Your task to perform on an android device: find which apps use the phone's location Image 0: 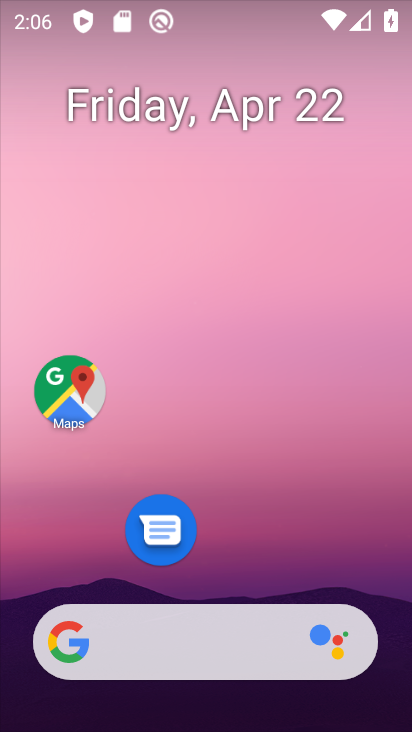
Step 0: drag from (245, 419) to (261, 13)
Your task to perform on an android device: find which apps use the phone's location Image 1: 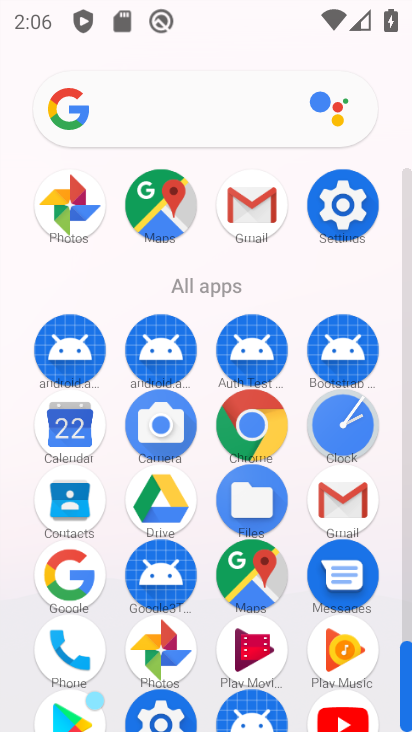
Step 1: click (341, 209)
Your task to perform on an android device: find which apps use the phone's location Image 2: 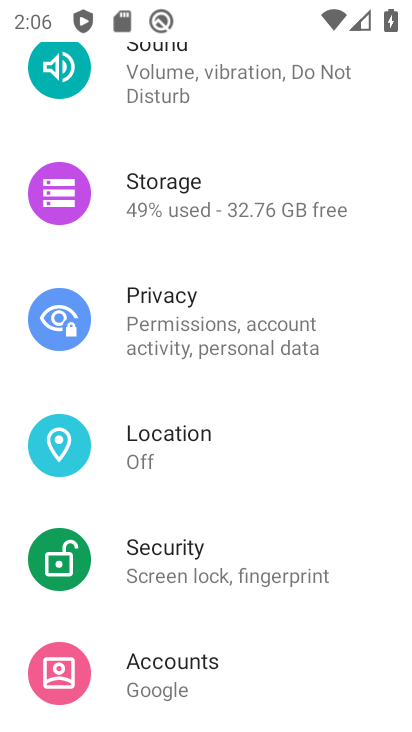
Step 2: click (154, 442)
Your task to perform on an android device: find which apps use the phone's location Image 3: 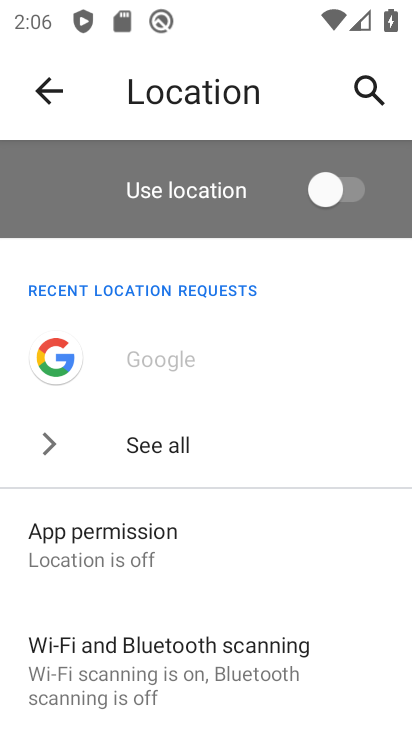
Step 3: click (135, 446)
Your task to perform on an android device: find which apps use the phone's location Image 4: 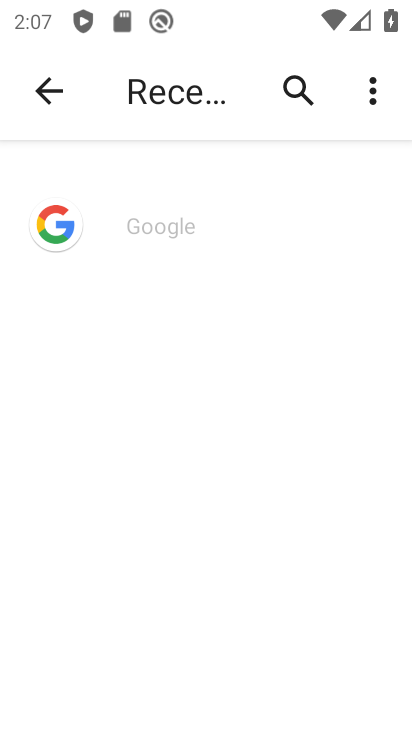
Step 4: task complete